Your task to perform on an android device: Open eBay Image 0: 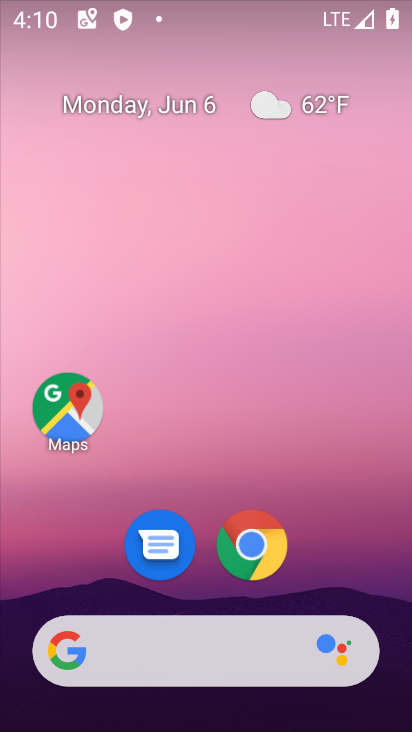
Step 0: click (247, 541)
Your task to perform on an android device: Open eBay Image 1: 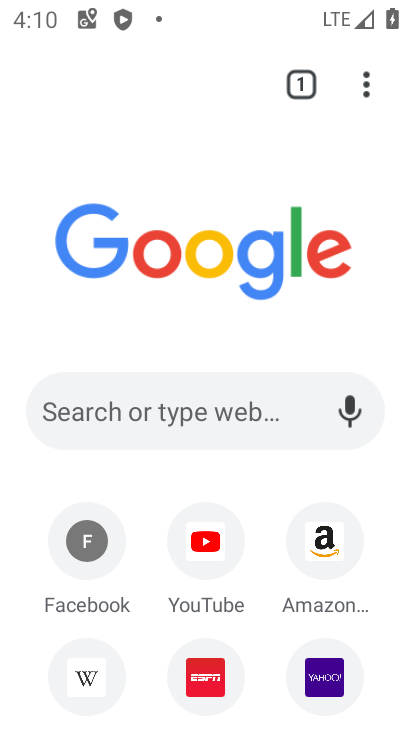
Step 1: click (192, 402)
Your task to perform on an android device: Open eBay Image 2: 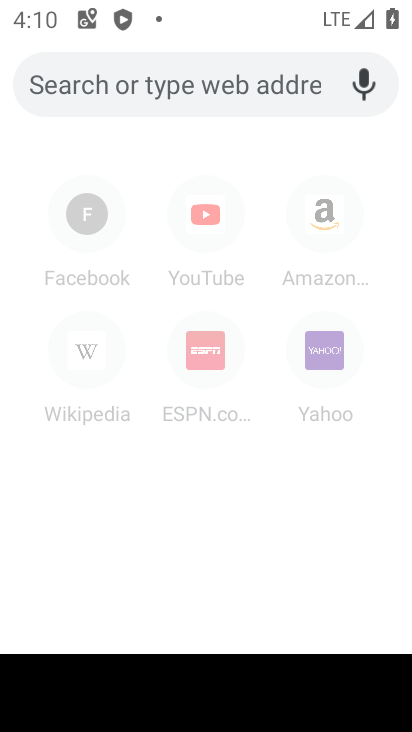
Step 2: type "eBay"
Your task to perform on an android device: Open eBay Image 3: 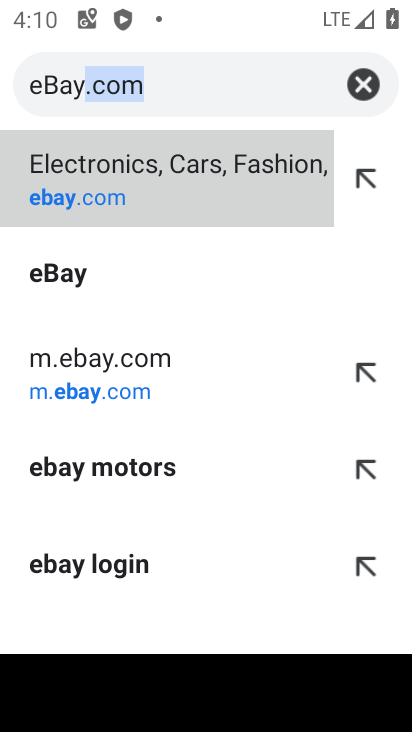
Step 3: click (45, 170)
Your task to perform on an android device: Open eBay Image 4: 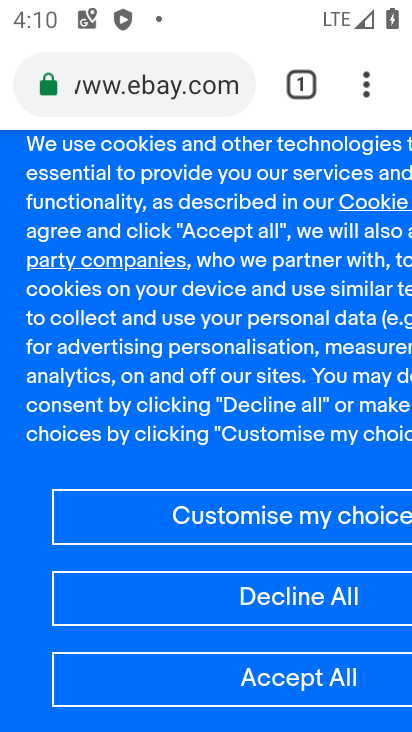
Step 4: task complete